Your task to perform on an android device: Show me productivity apps on the Play Store Image 0: 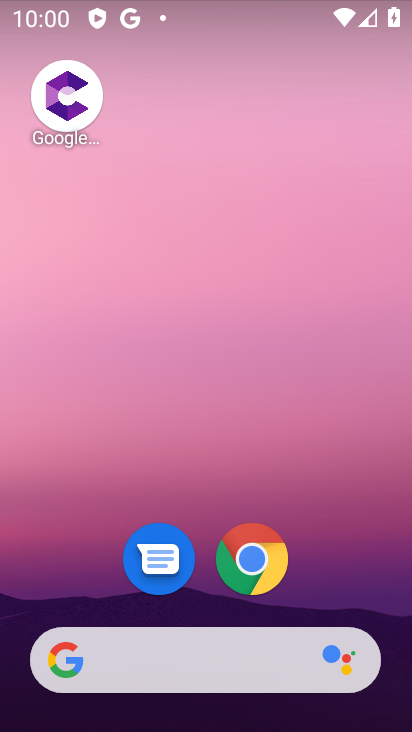
Step 0: drag from (403, 704) to (310, 5)
Your task to perform on an android device: Show me productivity apps on the Play Store Image 1: 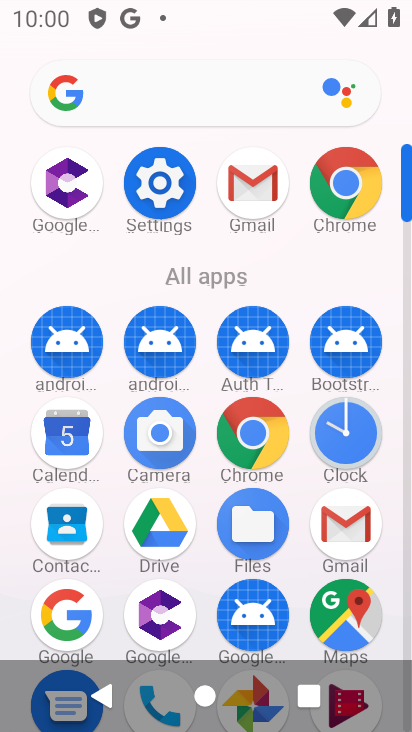
Step 1: drag from (204, 628) to (174, 298)
Your task to perform on an android device: Show me productivity apps on the Play Store Image 2: 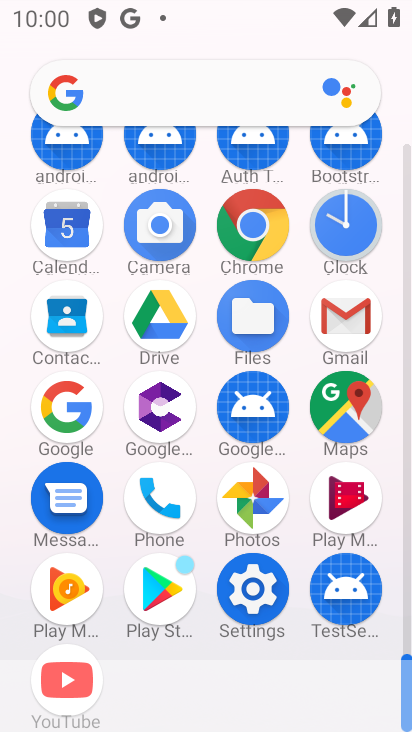
Step 2: click (159, 590)
Your task to perform on an android device: Show me productivity apps on the Play Store Image 3: 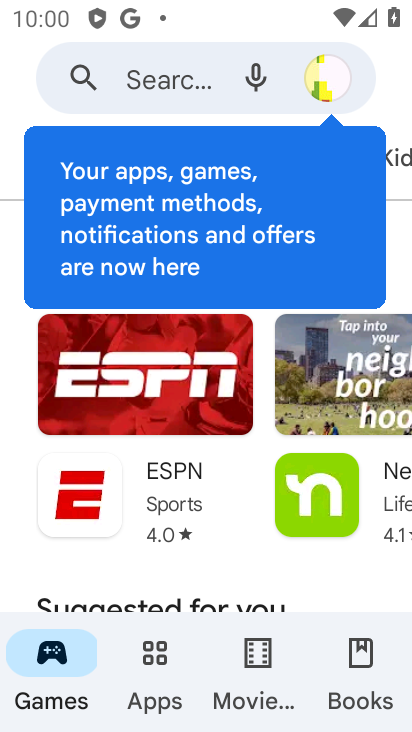
Step 3: type "productivity apps"
Your task to perform on an android device: Show me productivity apps on the Play Store Image 4: 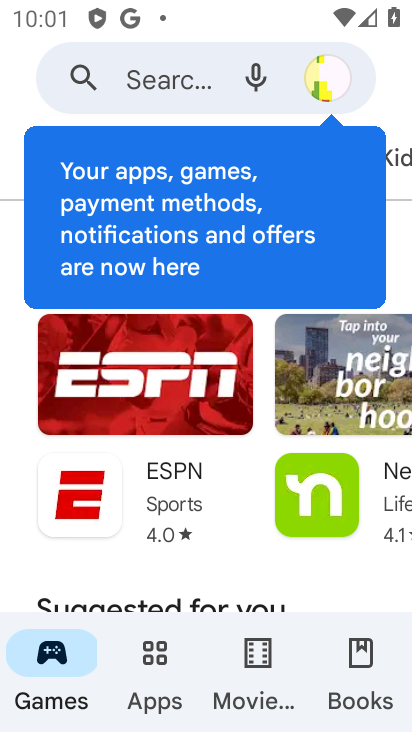
Step 4: click (210, 75)
Your task to perform on an android device: Show me productivity apps on the Play Store Image 5: 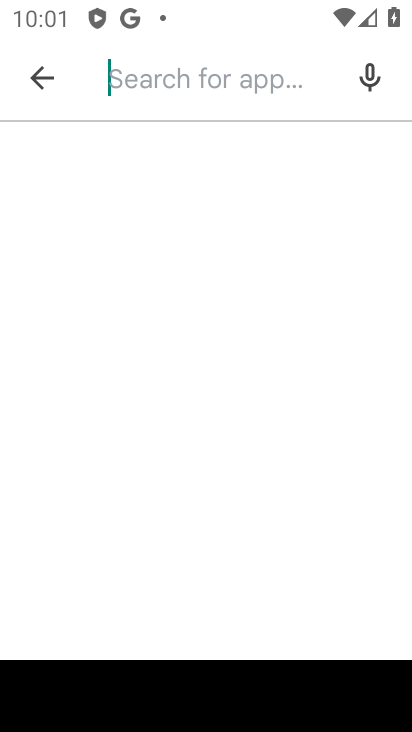
Step 5: type "productivity apps"
Your task to perform on an android device: Show me productivity apps on the Play Store Image 6: 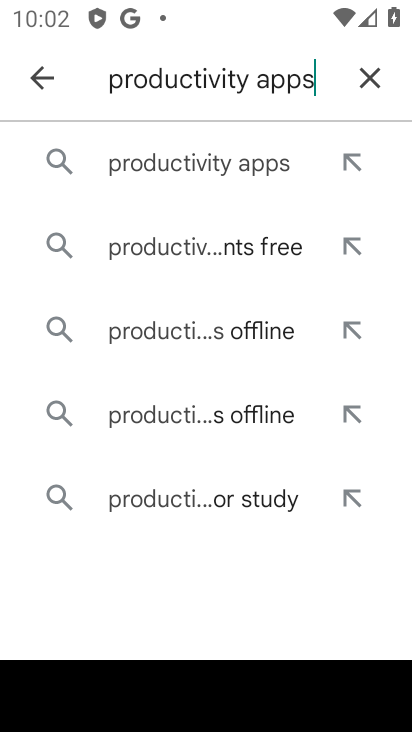
Step 6: click (164, 157)
Your task to perform on an android device: Show me productivity apps on the Play Store Image 7: 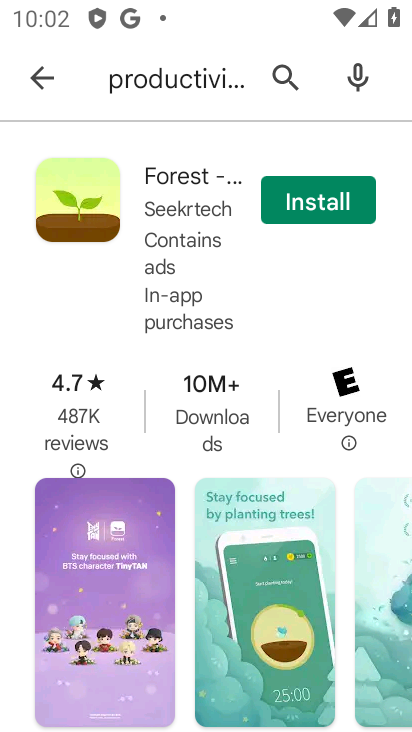
Step 7: task complete